Your task to perform on an android device: see tabs open on other devices in the chrome app Image 0: 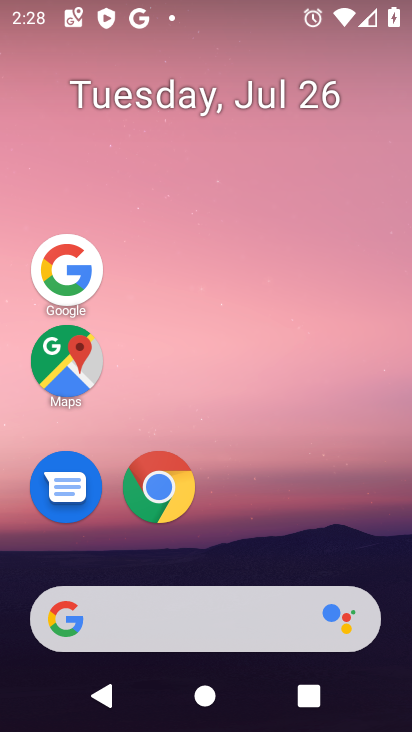
Step 0: drag from (185, 460) to (209, 96)
Your task to perform on an android device: see tabs open on other devices in the chrome app Image 1: 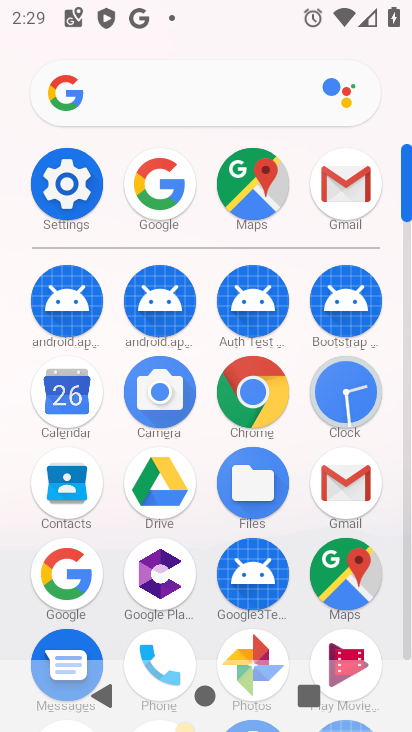
Step 1: click (267, 407)
Your task to perform on an android device: see tabs open on other devices in the chrome app Image 2: 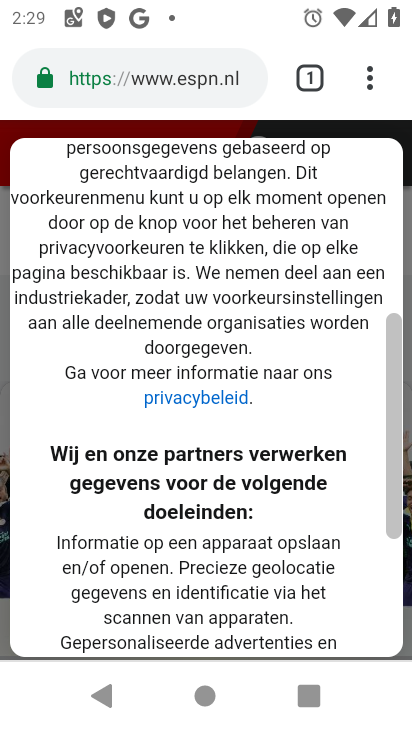
Step 2: task complete